Your task to perform on an android device: Open Android settings Image 0: 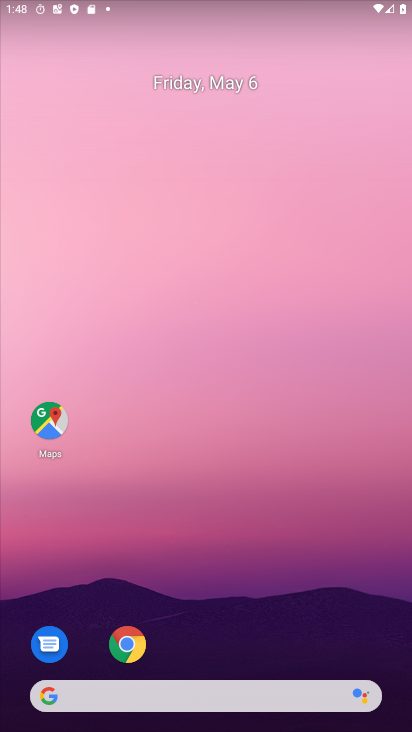
Step 0: drag from (298, 666) to (368, 56)
Your task to perform on an android device: Open Android settings Image 1: 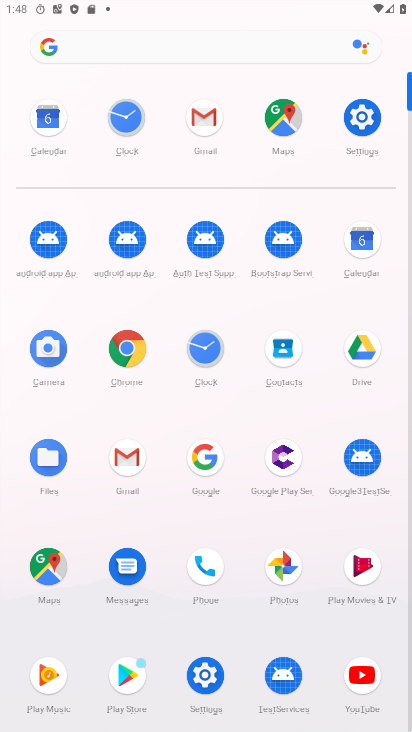
Step 1: click (357, 118)
Your task to perform on an android device: Open Android settings Image 2: 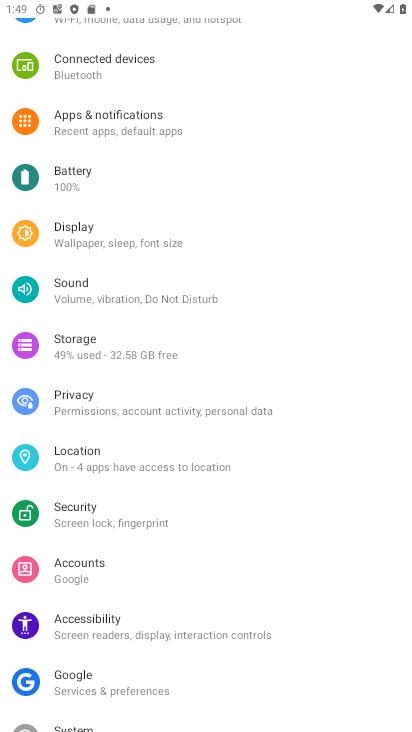
Step 2: task complete